Your task to perform on an android device: Go to settings Image 0: 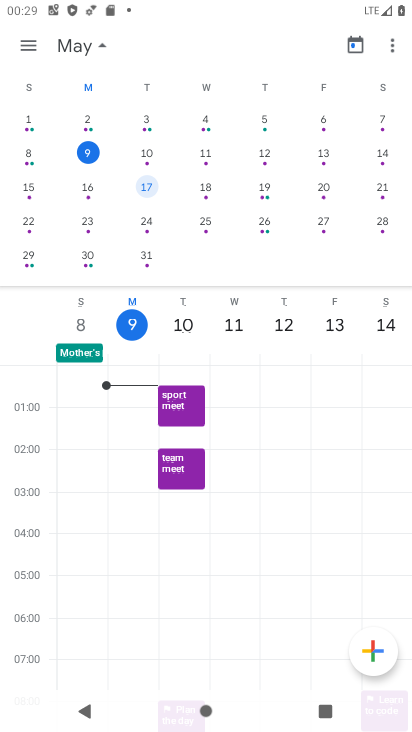
Step 0: press home button
Your task to perform on an android device: Go to settings Image 1: 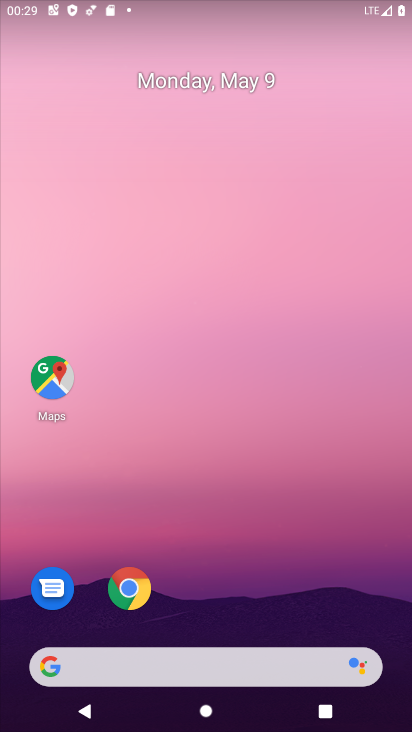
Step 1: drag from (303, 520) to (155, 54)
Your task to perform on an android device: Go to settings Image 2: 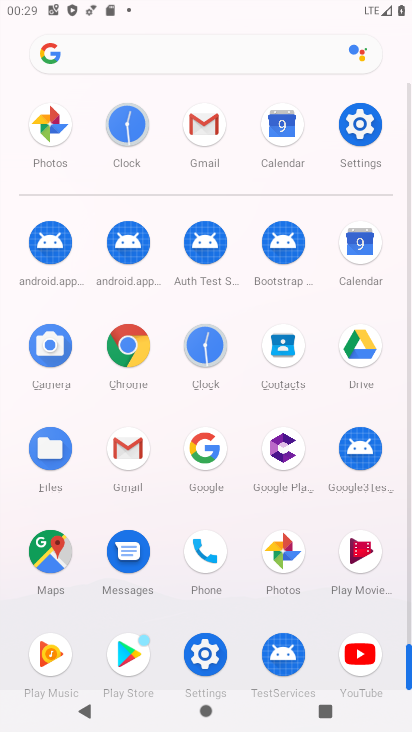
Step 2: click (351, 124)
Your task to perform on an android device: Go to settings Image 3: 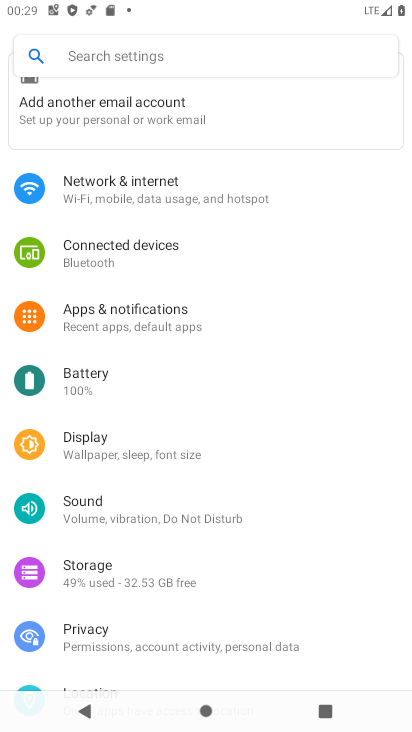
Step 3: task complete